Your task to perform on an android device: What is the news today? Image 0: 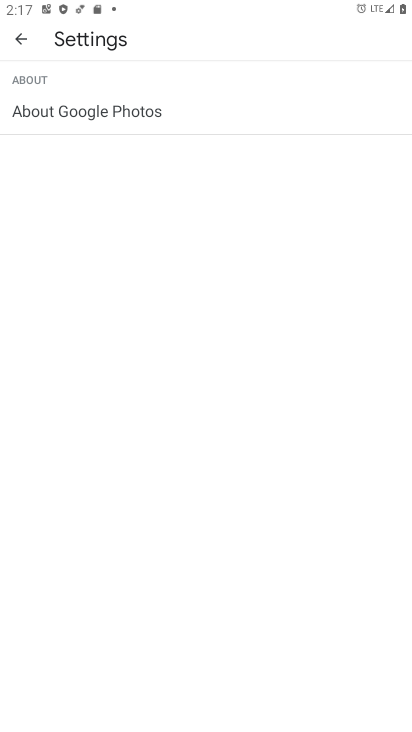
Step 0: press home button
Your task to perform on an android device: What is the news today? Image 1: 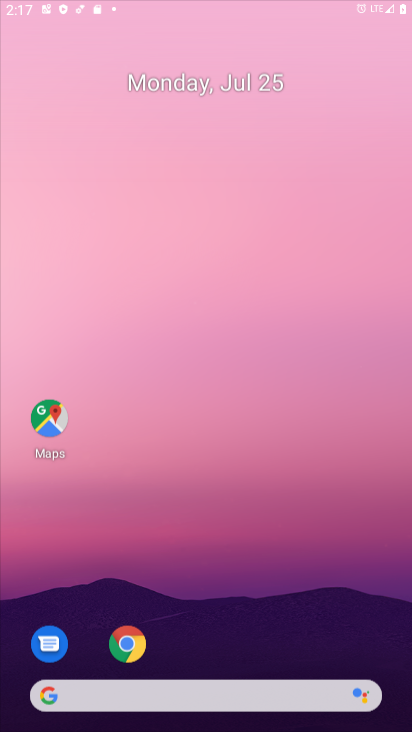
Step 1: drag from (401, 686) to (213, 52)
Your task to perform on an android device: What is the news today? Image 2: 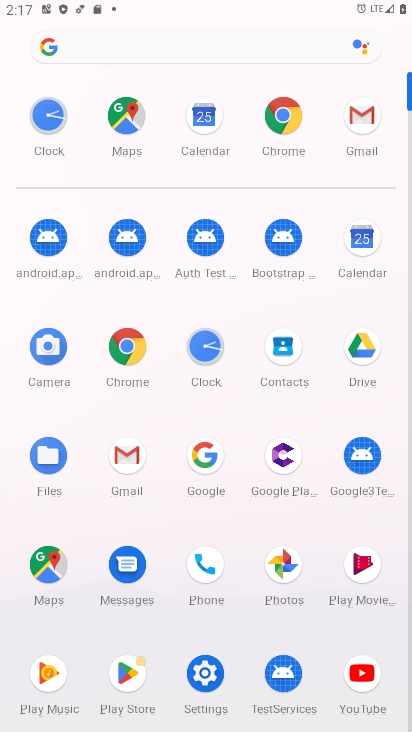
Step 2: click (191, 469)
Your task to perform on an android device: What is the news today? Image 3: 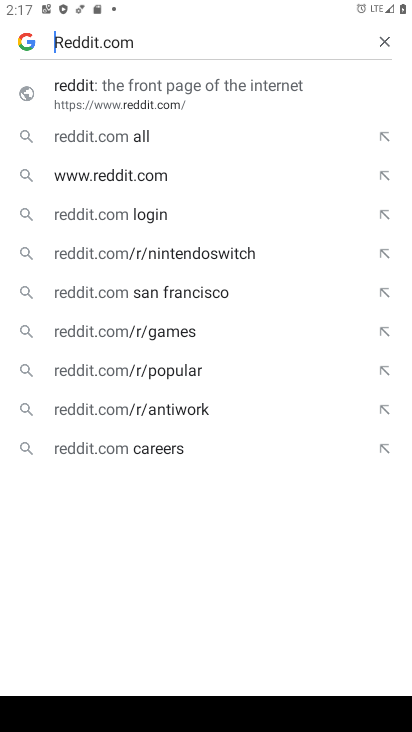
Step 3: click (382, 36)
Your task to perform on an android device: What is the news today? Image 4: 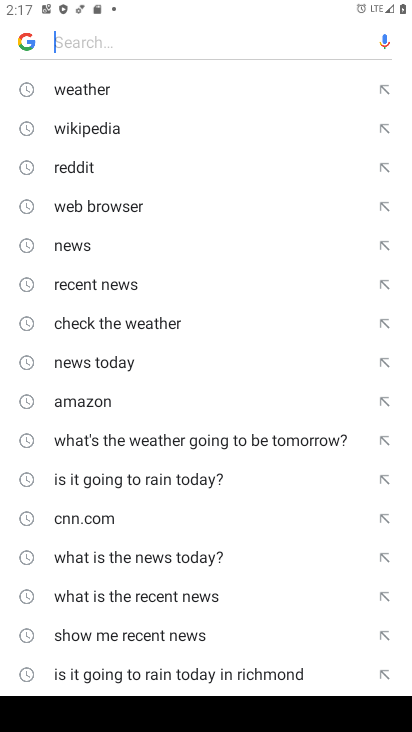
Step 4: type "What is the news today?"
Your task to perform on an android device: What is the news today? Image 5: 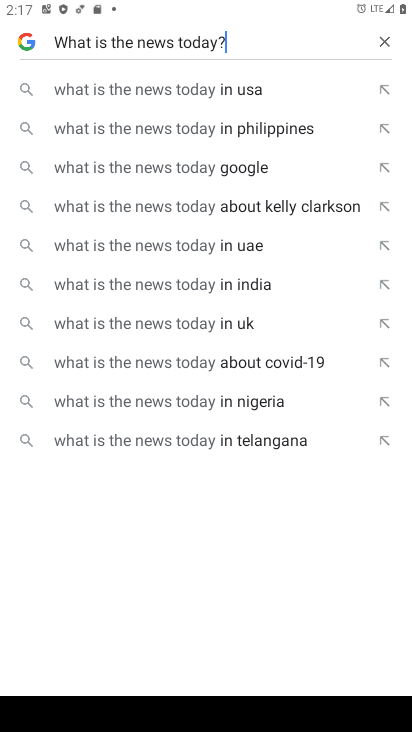
Step 5: click (170, 159)
Your task to perform on an android device: What is the news today? Image 6: 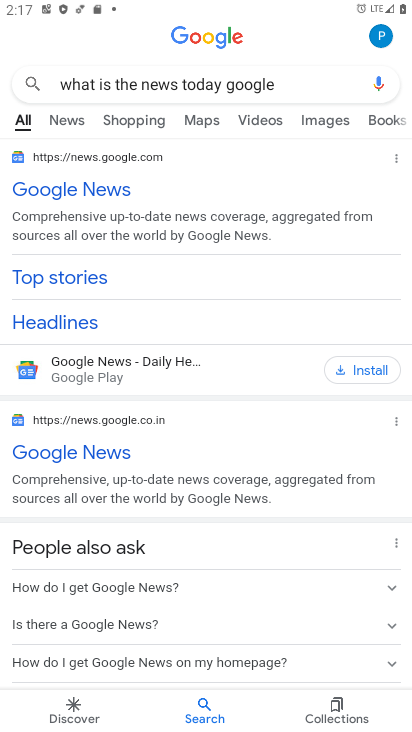
Step 6: task complete